Your task to perform on an android device: stop showing notifications on the lock screen Image 0: 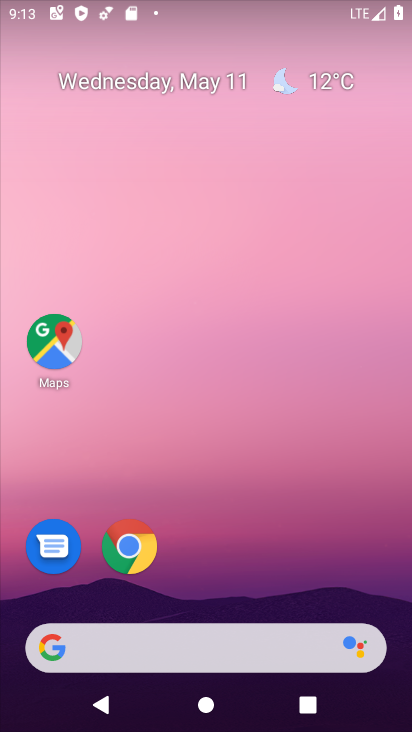
Step 0: drag from (400, 639) to (342, 107)
Your task to perform on an android device: stop showing notifications on the lock screen Image 1: 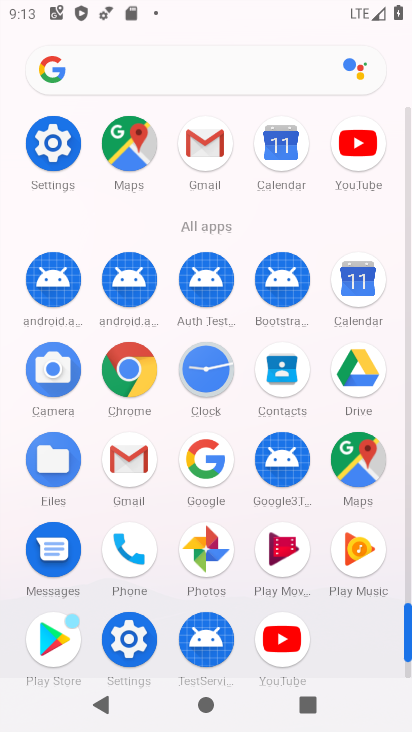
Step 1: click (409, 670)
Your task to perform on an android device: stop showing notifications on the lock screen Image 2: 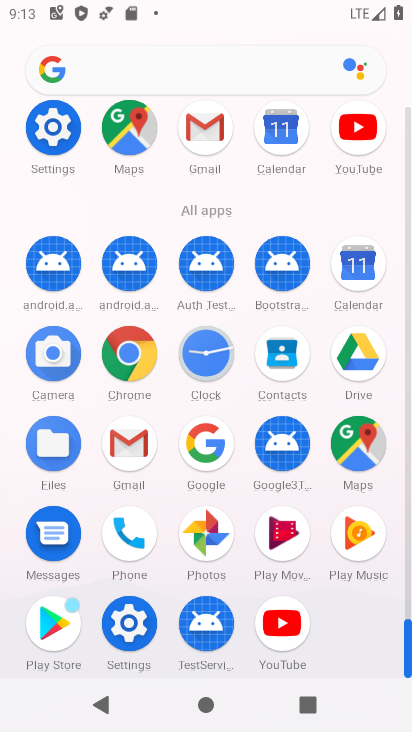
Step 2: click (129, 625)
Your task to perform on an android device: stop showing notifications on the lock screen Image 3: 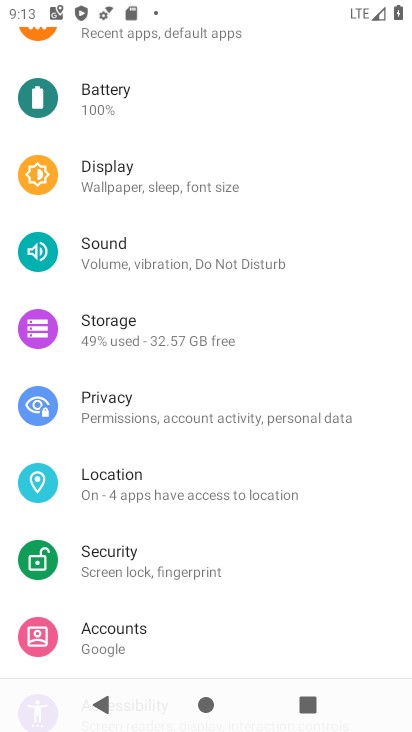
Step 3: drag from (291, 107) to (313, 397)
Your task to perform on an android device: stop showing notifications on the lock screen Image 4: 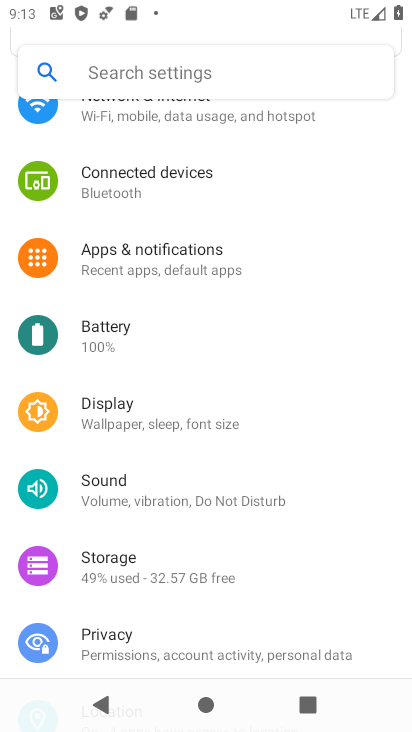
Step 4: click (118, 248)
Your task to perform on an android device: stop showing notifications on the lock screen Image 5: 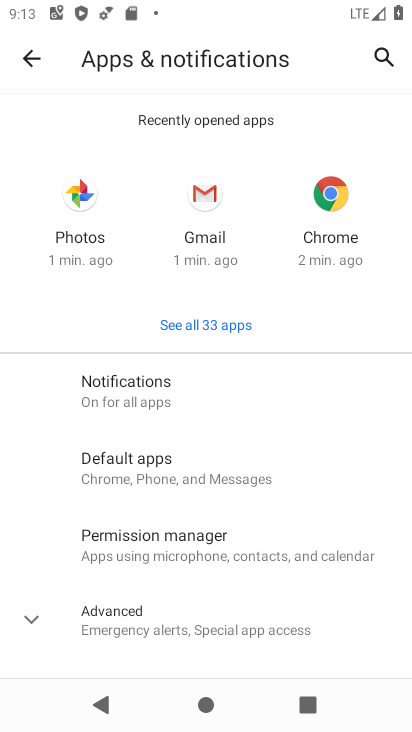
Step 5: click (111, 379)
Your task to perform on an android device: stop showing notifications on the lock screen Image 6: 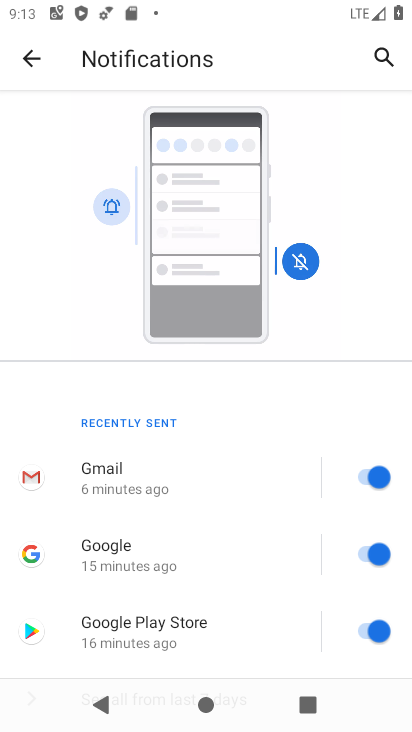
Step 6: drag from (313, 644) to (281, 160)
Your task to perform on an android device: stop showing notifications on the lock screen Image 7: 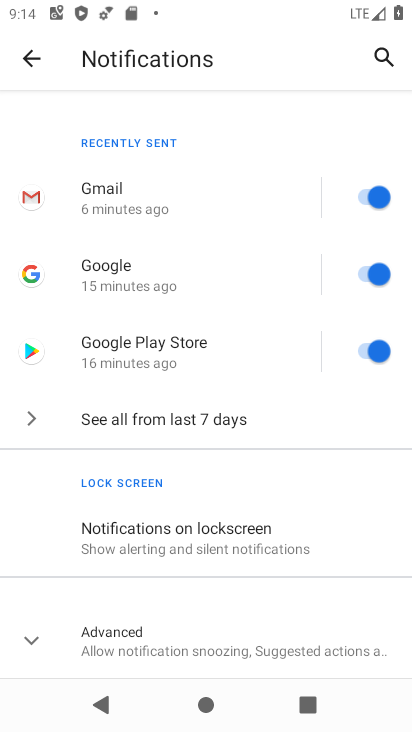
Step 7: click (142, 519)
Your task to perform on an android device: stop showing notifications on the lock screen Image 8: 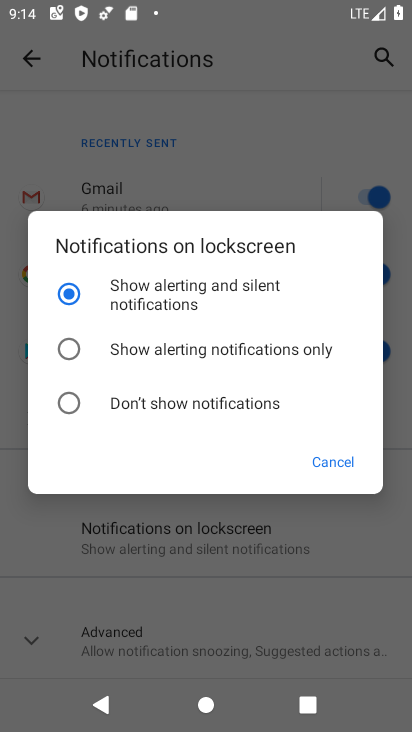
Step 8: click (67, 396)
Your task to perform on an android device: stop showing notifications on the lock screen Image 9: 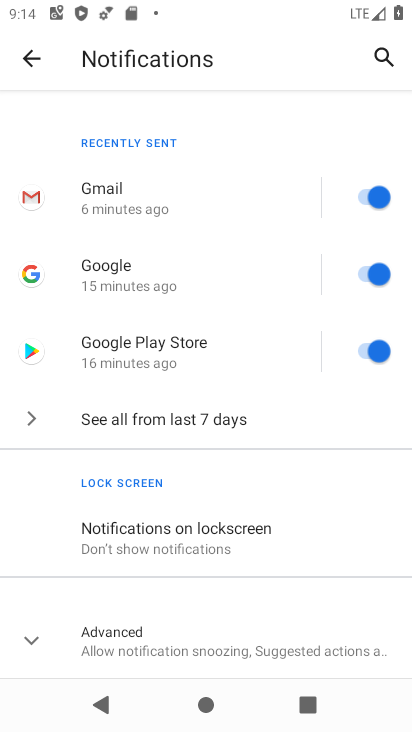
Step 9: task complete